Your task to perform on an android device: see tabs open on other devices in the chrome app Image 0: 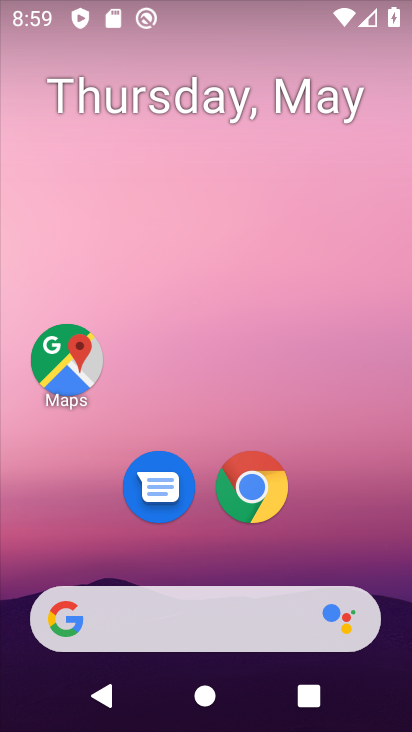
Step 0: click (261, 487)
Your task to perform on an android device: see tabs open on other devices in the chrome app Image 1: 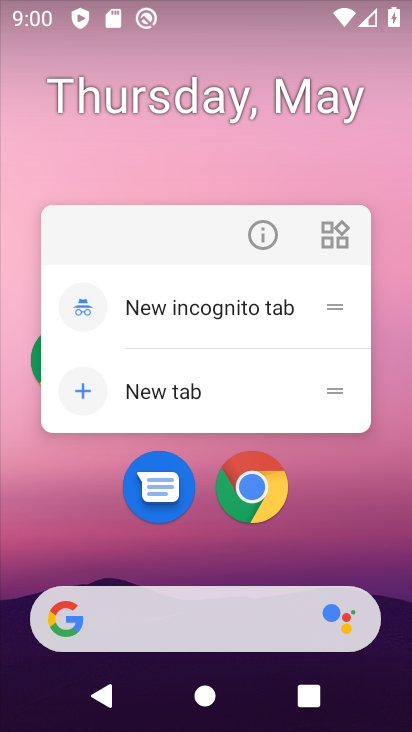
Step 1: click (263, 496)
Your task to perform on an android device: see tabs open on other devices in the chrome app Image 2: 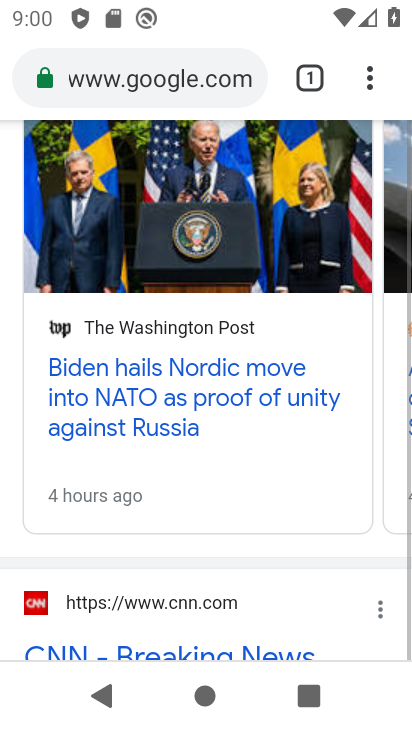
Step 2: task complete